Your task to perform on an android device: empty trash in the gmail app Image 0: 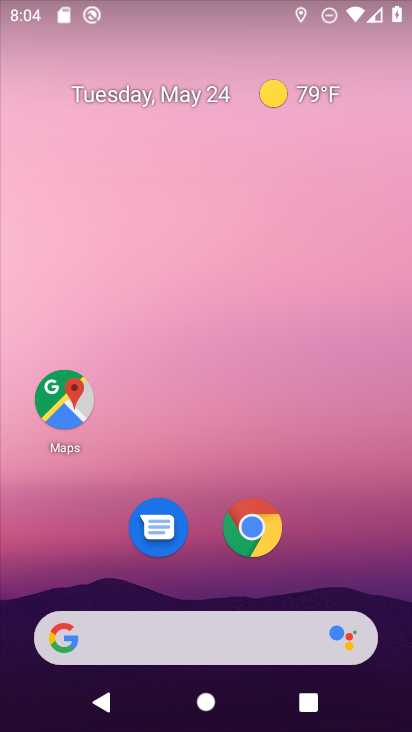
Step 0: drag from (366, 514) to (260, 114)
Your task to perform on an android device: empty trash in the gmail app Image 1: 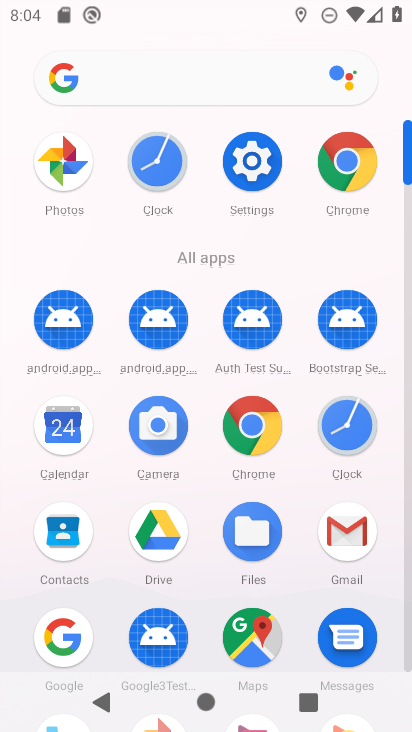
Step 1: click (345, 532)
Your task to perform on an android device: empty trash in the gmail app Image 2: 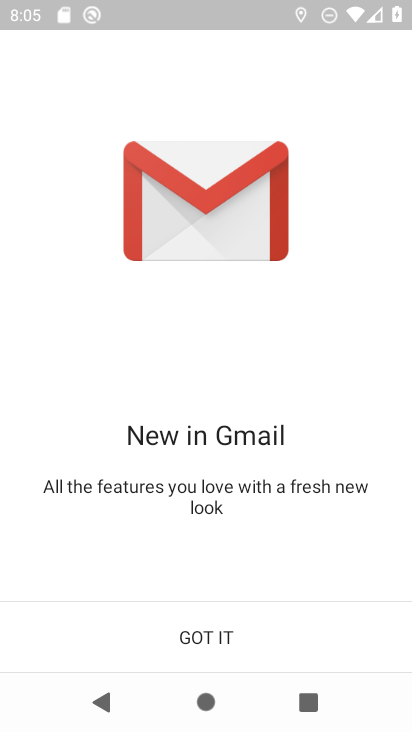
Step 2: click (186, 641)
Your task to perform on an android device: empty trash in the gmail app Image 3: 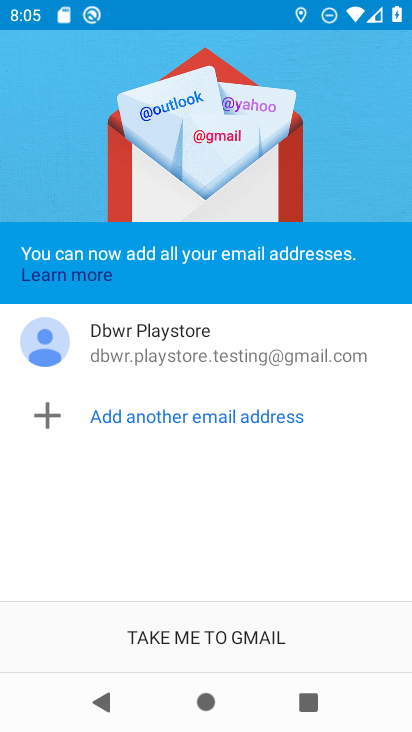
Step 3: click (230, 615)
Your task to perform on an android device: empty trash in the gmail app Image 4: 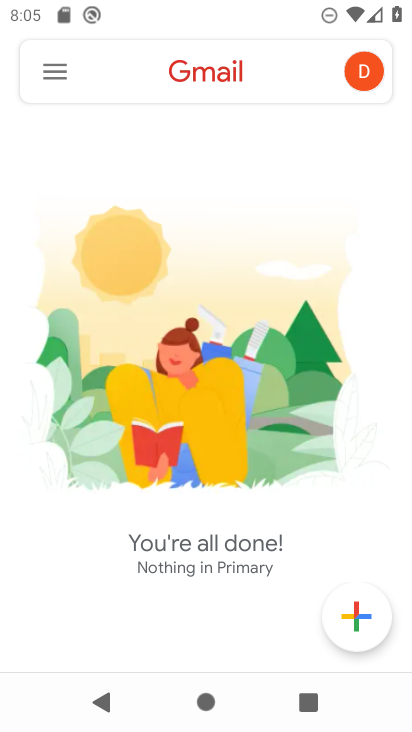
Step 4: click (46, 73)
Your task to perform on an android device: empty trash in the gmail app Image 5: 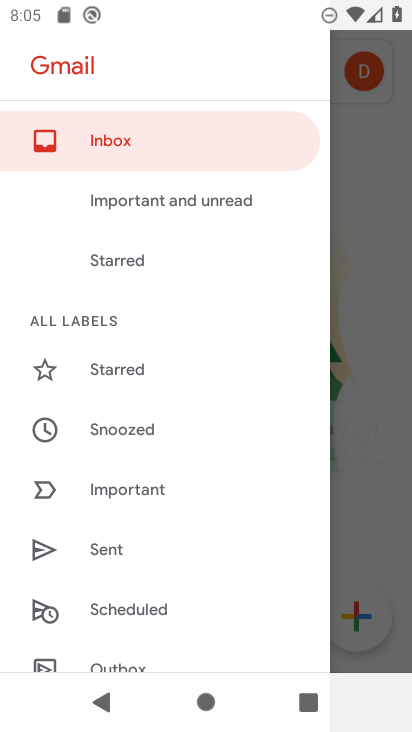
Step 5: drag from (132, 551) to (141, 169)
Your task to perform on an android device: empty trash in the gmail app Image 6: 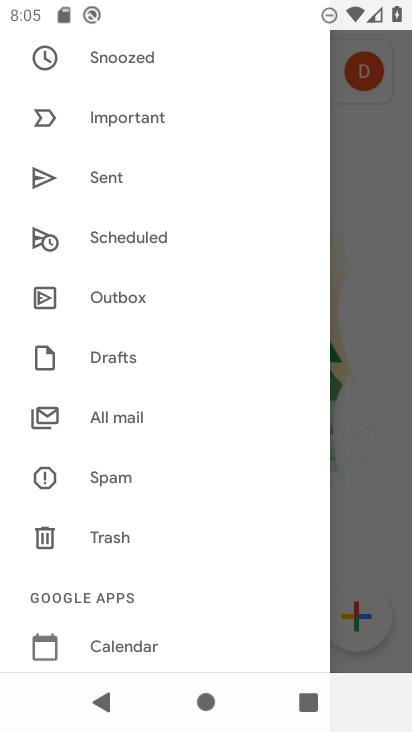
Step 6: click (124, 532)
Your task to perform on an android device: empty trash in the gmail app Image 7: 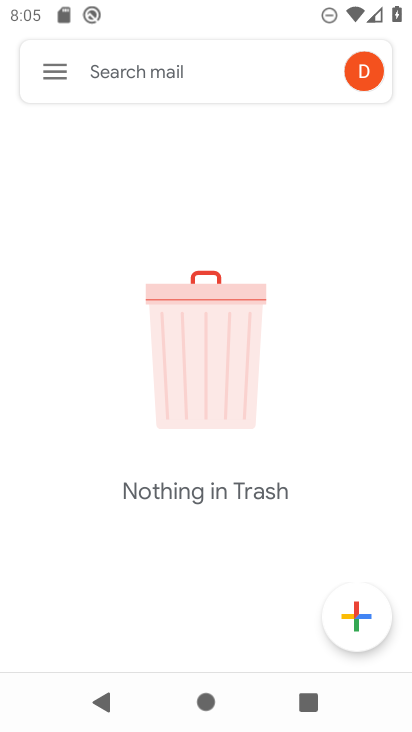
Step 7: task complete